Your task to perform on an android device: Open the calendar and show me this week's events? Image 0: 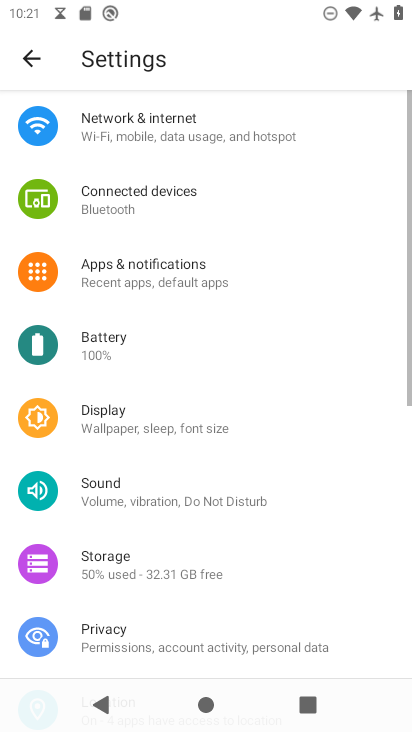
Step 0: press home button
Your task to perform on an android device: Open the calendar and show me this week's events? Image 1: 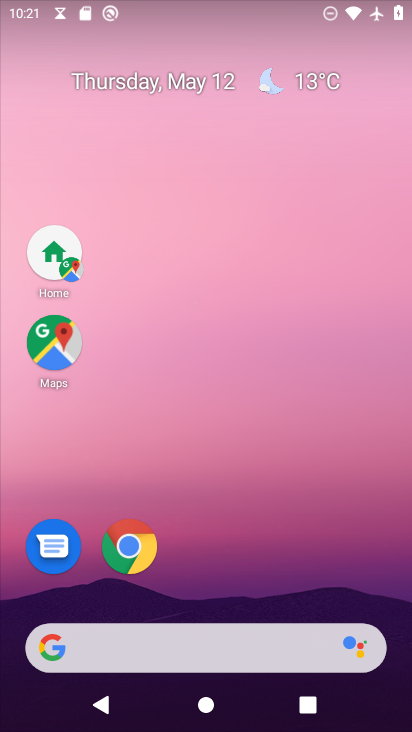
Step 1: drag from (158, 658) to (332, 103)
Your task to perform on an android device: Open the calendar and show me this week's events? Image 2: 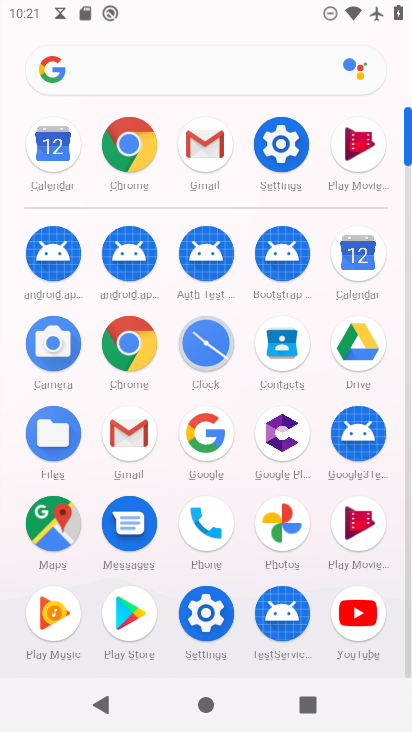
Step 2: click (366, 255)
Your task to perform on an android device: Open the calendar and show me this week's events? Image 3: 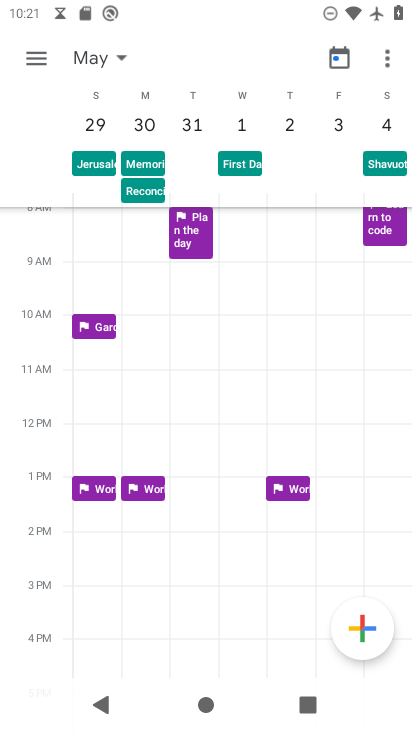
Step 3: click (93, 55)
Your task to perform on an android device: Open the calendar and show me this week's events? Image 4: 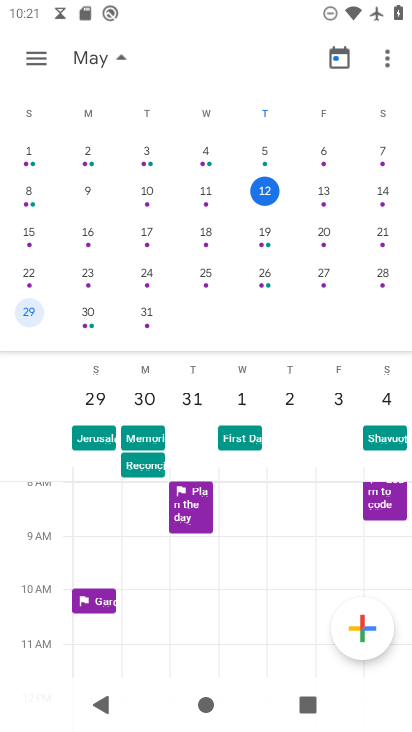
Step 4: click (256, 191)
Your task to perform on an android device: Open the calendar and show me this week's events? Image 5: 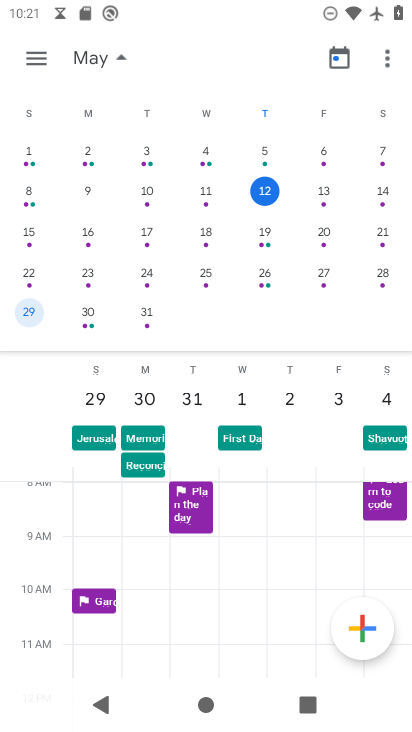
Step 5: click (265, 191)
Your task to perform on an android device: Open the calendar and show me this week's events? Image 6: 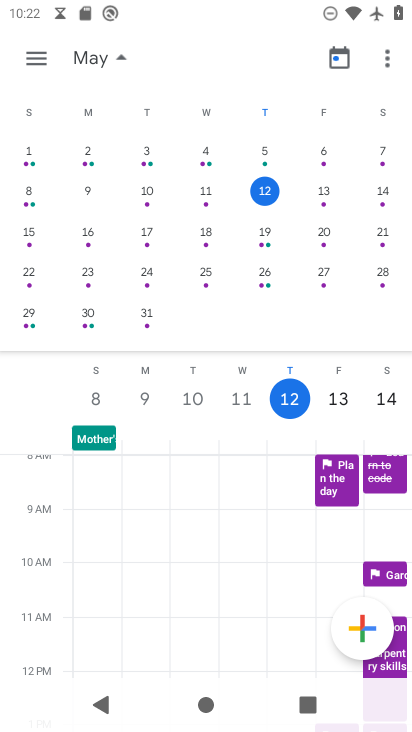
Step 6: click (38, 59)
Your task to perform on an android device: Open the calendar and show me this week's events? Image 7: 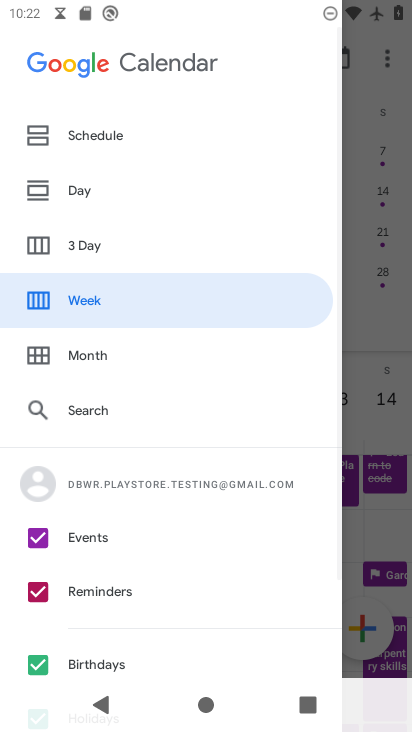
Step 7: click (85, 292)
Your task to perform on an android device: Open the calendar and show me this week's events? Image 8: 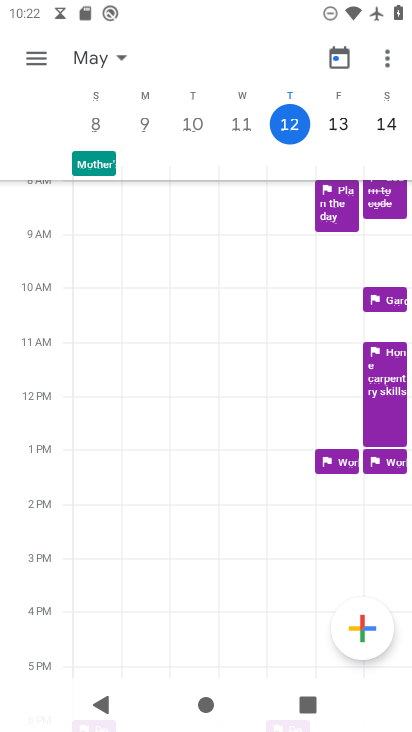
Step 8: click (41, 58)
Your task to perform on an android device: Open the calendar and show me this week's events? Image 9: 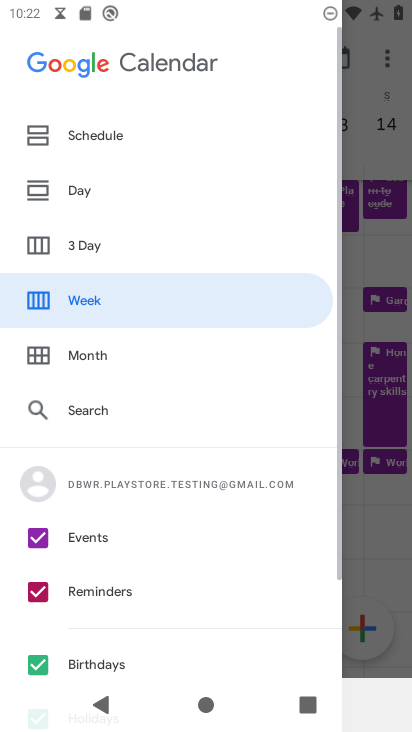
Step 9: click (115, 135)
Your task to perform on an android device: Open the calendar and show me this week's events? Image 10: 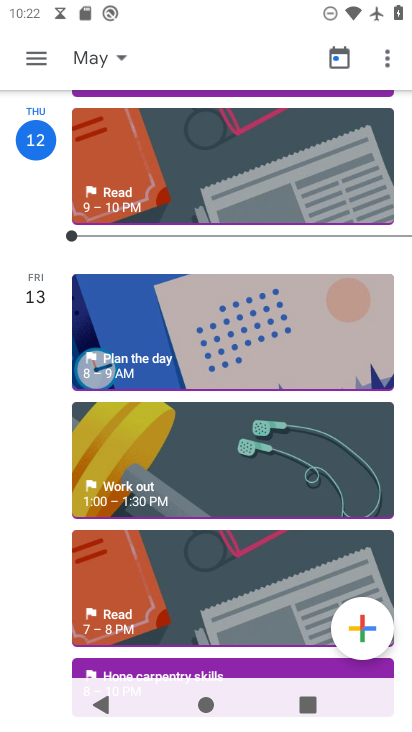
Step 10: drag from (178, 588) to (251, 335)
Your task to perform on an android device: Open the calendar and show me this week's events? Image 11: 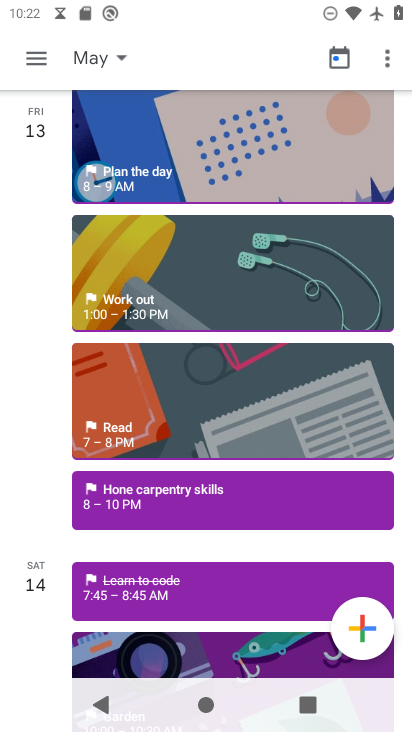
Step 11: click (136, 504)
Your task to perform on an android device: Open the calendar and show me this week's events? Image 12: 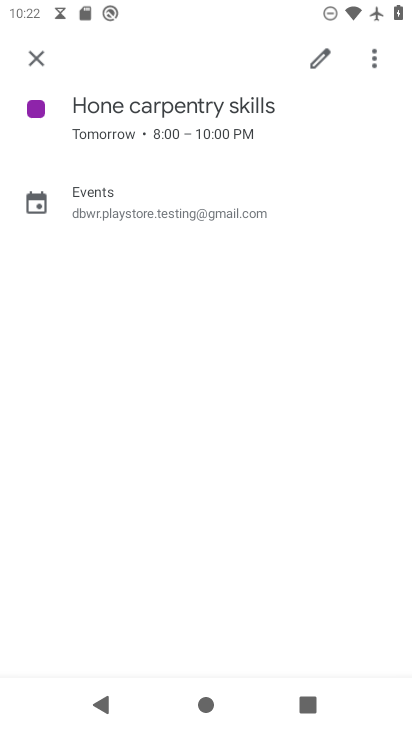
Step 12: task complete